Your task to perform on an android device: see creations saved in the google photos Image 0: 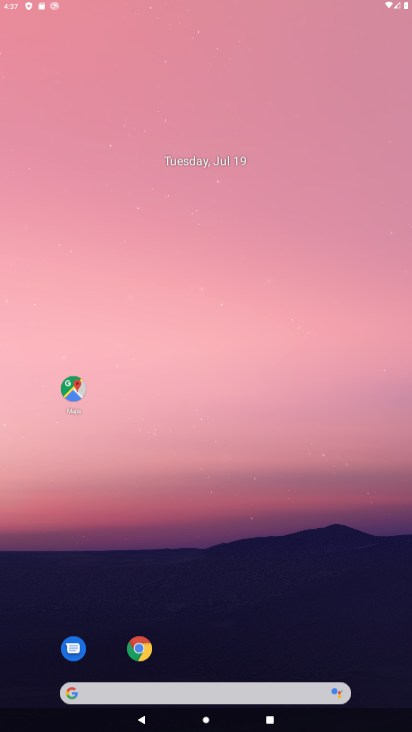
Step 0: press home button
Your task to perform on an android device: see creations saved in the google photos Image 1: 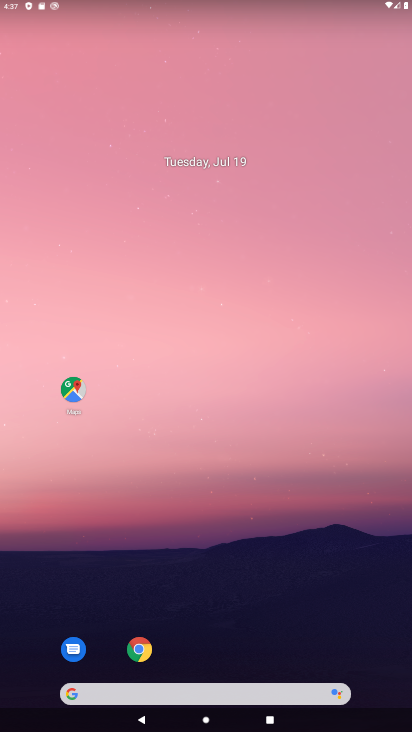
Step 1: click (273, 51)
Your task to perform on an android device: see creations saved in the google photos Image 2: 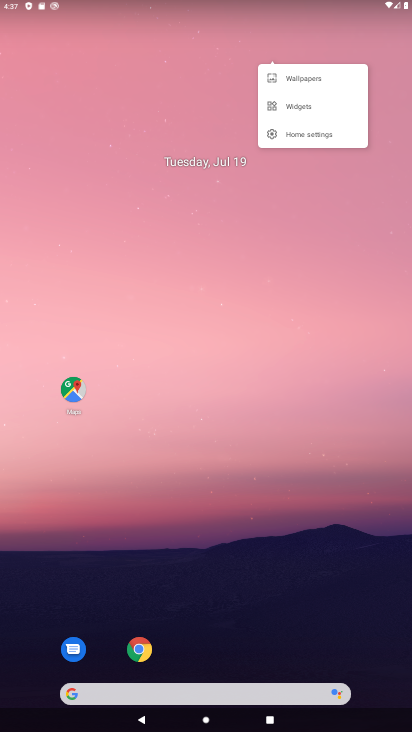
Step 2: click (216, 578)
Your task to perform on an android device: see creations saved in the google photos Image 3: 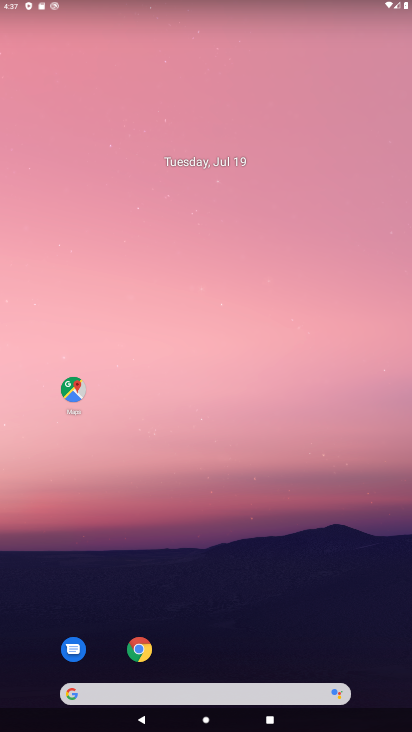
Step 3: drag from (197, 633) to (255, 53)
Your task to perform on an android device: see creations saved in the google photos Image 4: 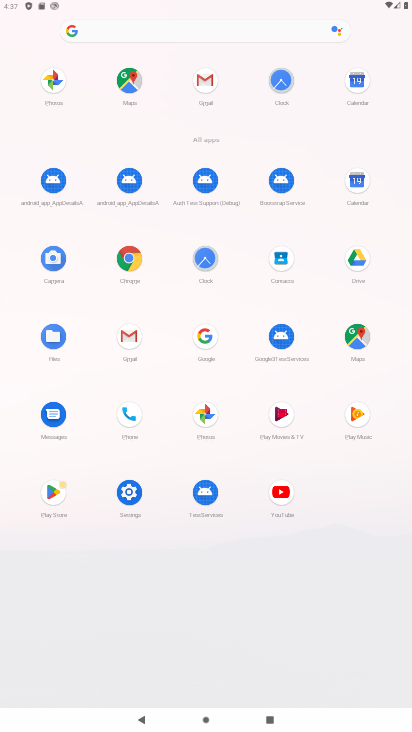
Step 4: click (212, 422)
Your task to perform on an android device: see creations saved in the google photos Image 5: 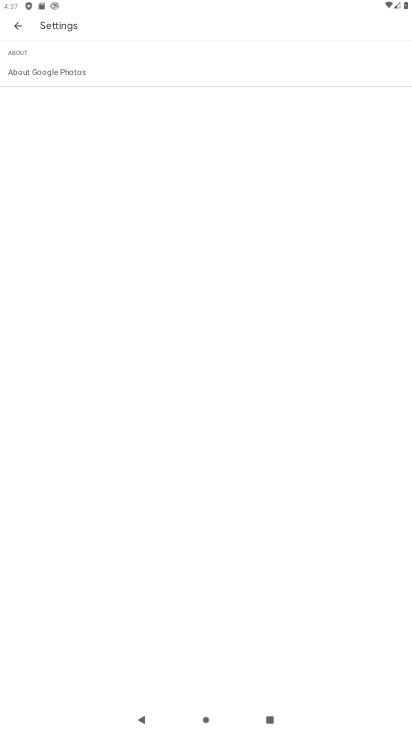
Step 5: click (18, 19)
Your task to perform on an android device: see creations saved in the google photos Image 6: 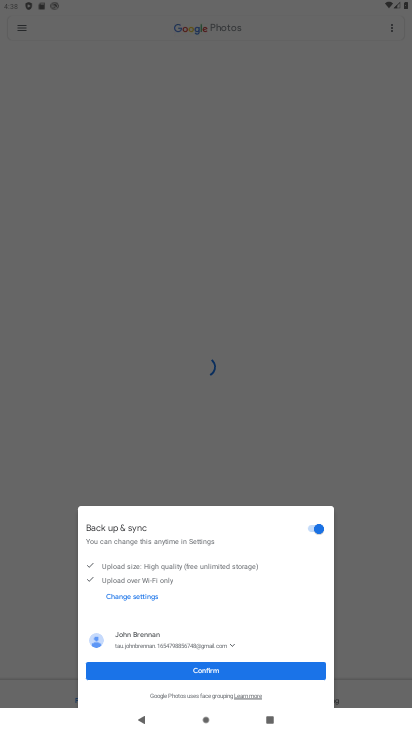
Step 6: click (229, 662)
Your task to perform on an android device: see creations saved in the google photos Image 7: 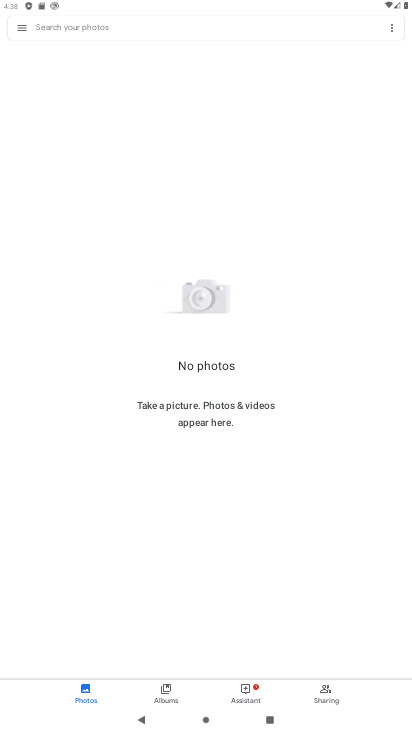
Step 7: click (127, 31)
Your task to perform on an android device: see creations saved in the google photos Image 8: 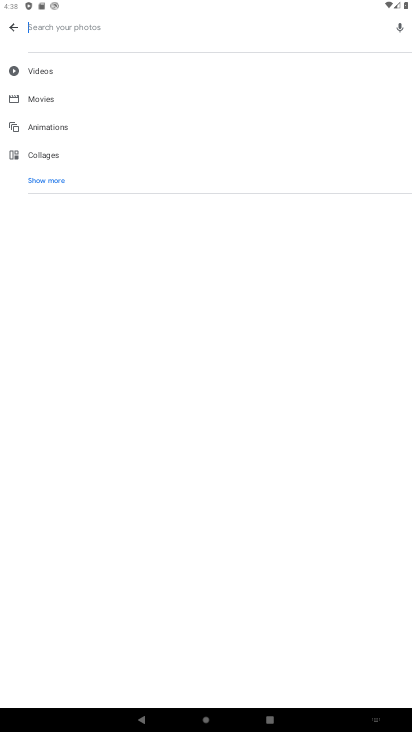
Step 8: click (52, 176)
Your task to perform on an android device: see creations saved in the google photos Image 9: 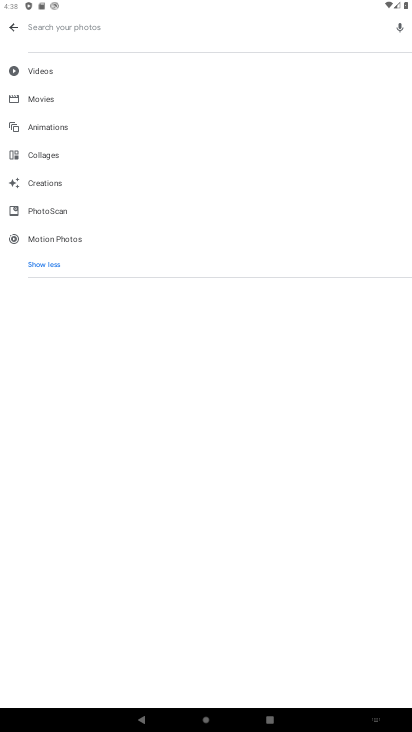
Step 9: click (43, 185)
Your task to perform on an android device: see creations saved in the google photos Image 10: 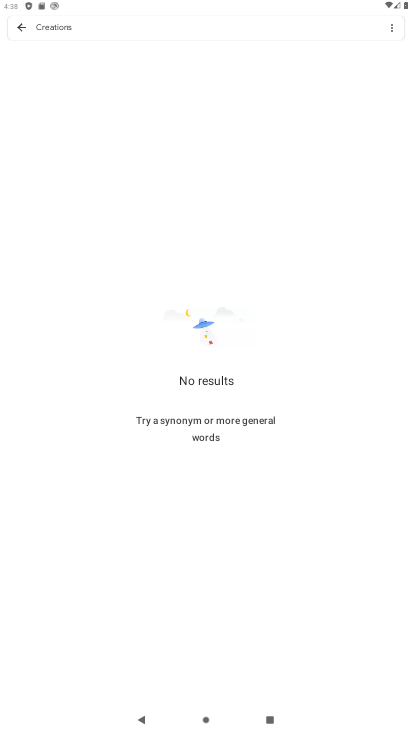
Step 10: task complete